Your task to perform on an android device: Go to location settings Image 0: 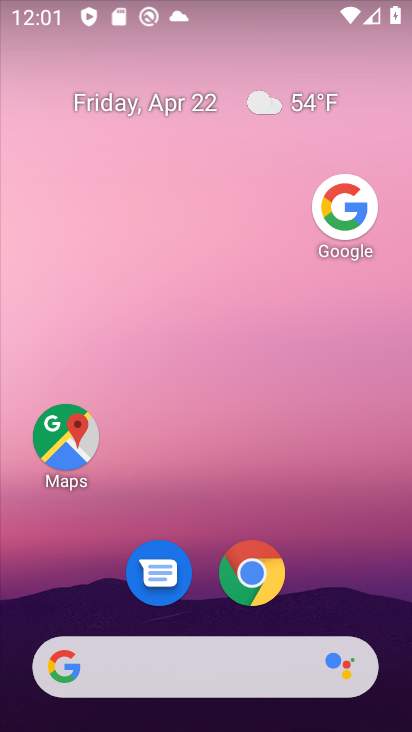
Step 0: drag from (207, 657) to (312, 205)
Your task to perform on an android device: Go to location settings Image 1: 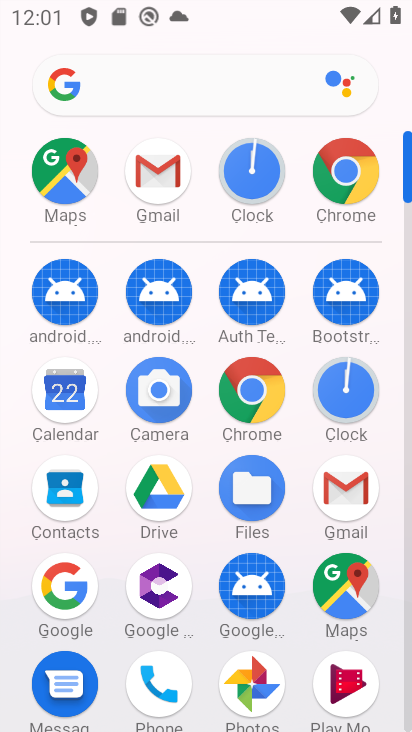
Step 1: drag from (231, 562) to (402, 234)
Your task to perform on an android device: Go to location settings Image 2: 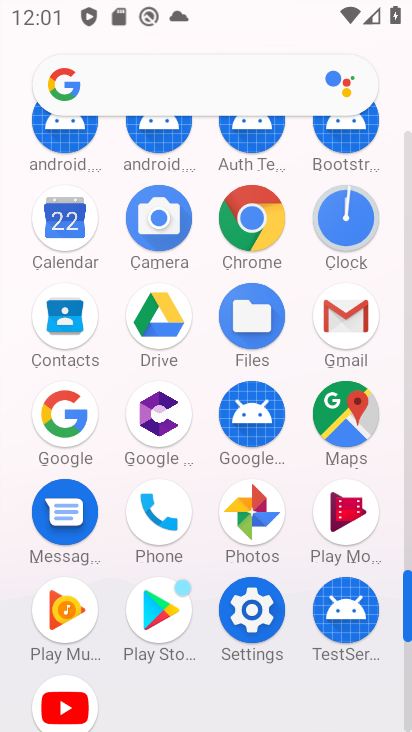
Step 2: click (260, 608)
Your task to perform on an android device: Go to location settings Image 3: 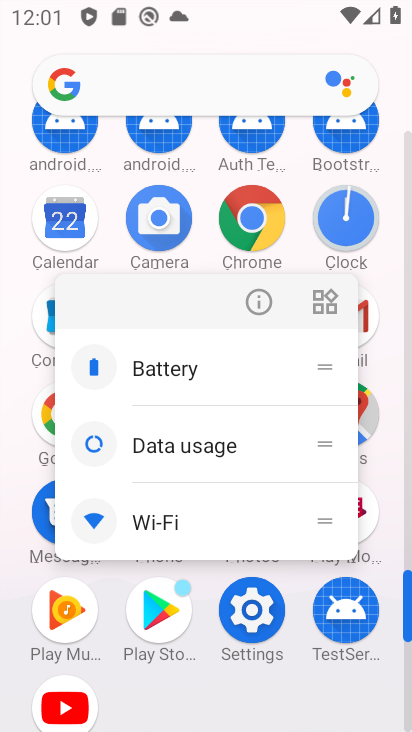
Step 3: click (248, 621)
Your task to perform on an android device: Go to location settings Image 4: 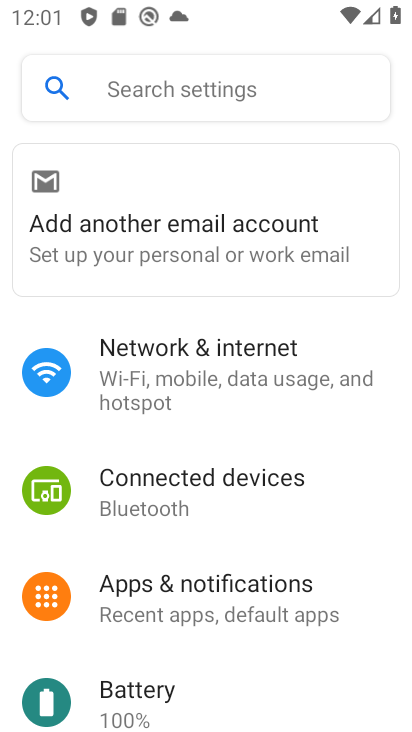
Step 4: drag from (222, 599) to (334, 213)
Your task to perform on an android device: Go to location settings Image 5: 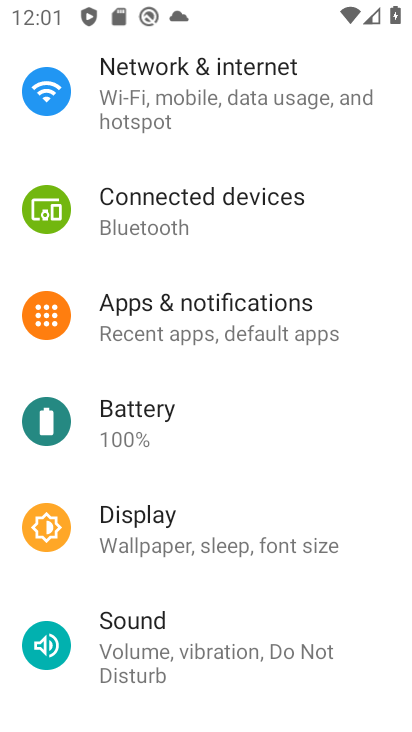
Step 5: drag from (153, 625) to (352, 208)
Your task to perform on an android device: Go to location settings Image 6: 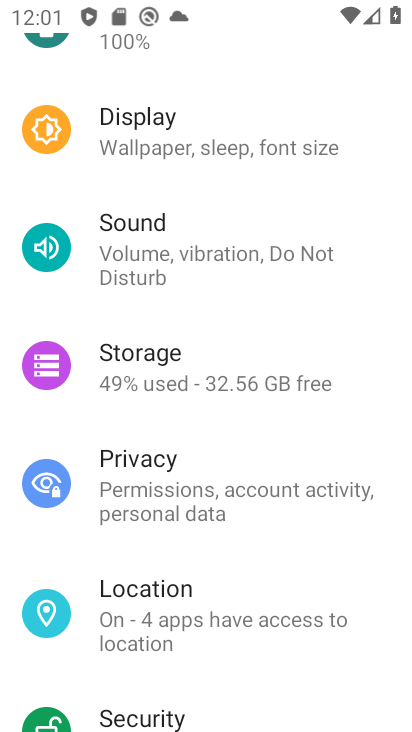
Step 6: drag from (204, 609) to (347, 112)
Your task to perform on an android device: Go to location settings Image 7: 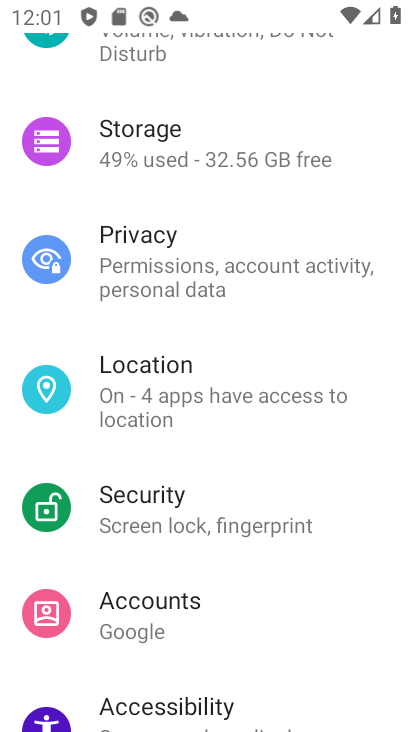
Step 7: click (166, 388)
Your task to perform on an android device: Go to location settings Image 8: 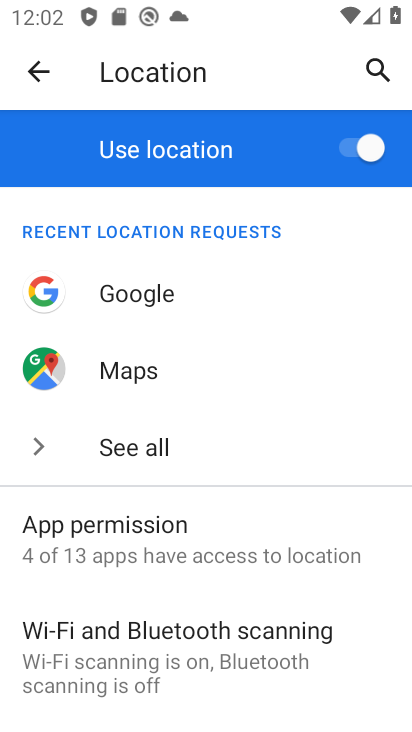
Step 8: task complete